Your task to perform on an android device: Go to Google Image 0: 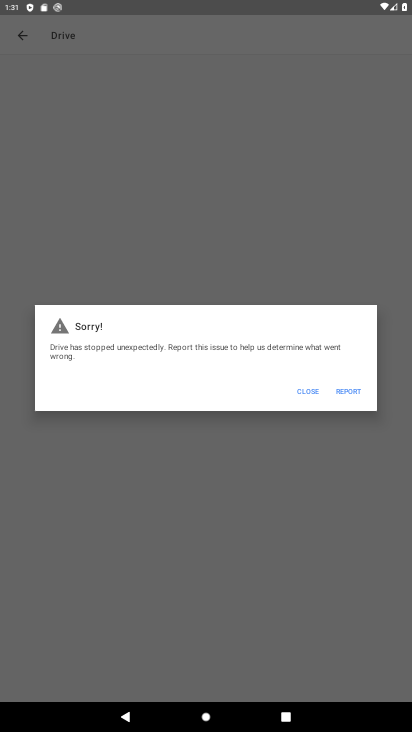
Step 0: press home button
Your task to perform on an android device: Go to Google Image 1: 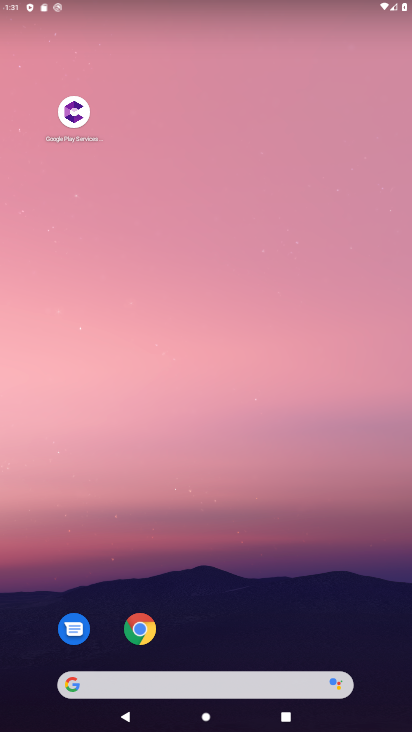
Step 1: drag from (207, 518) to (204, 313)
Your task to perform on an android device: Go to Google Image 2: 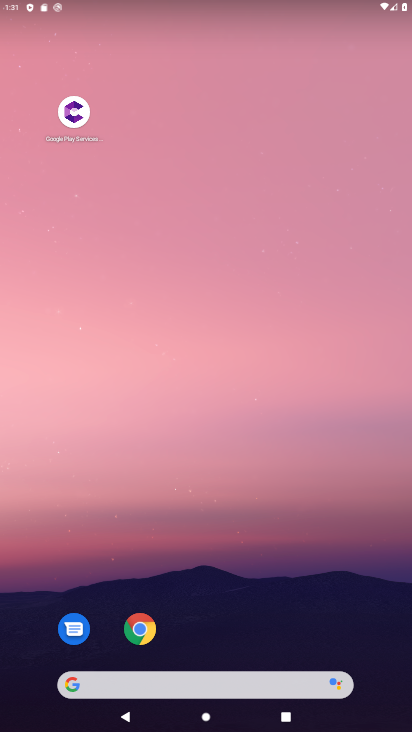
Step 2: drag from (237, 593) to (237, 219)
Your task to perform on an android device: Go to Google Image 3: 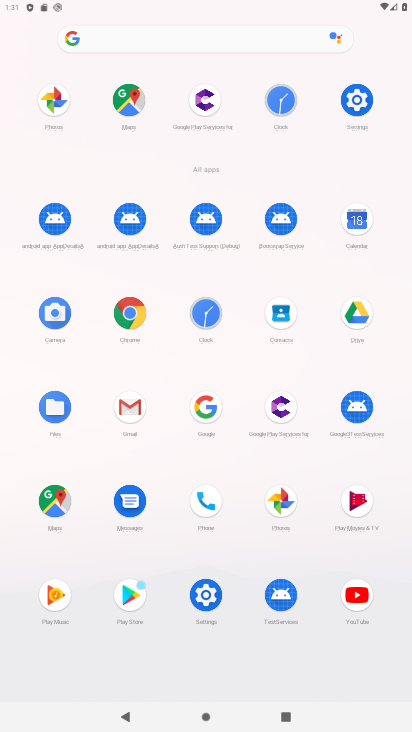
Step 3: click (207, 396)
Your task to perform on an android device: Go to Google Image 4: 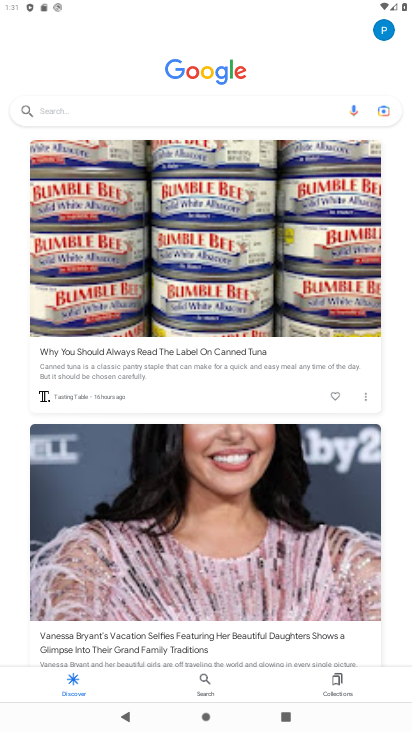
Step 4: task complete